Your task to perform on an android device: turn on the 24-hour format for clock Image 0: 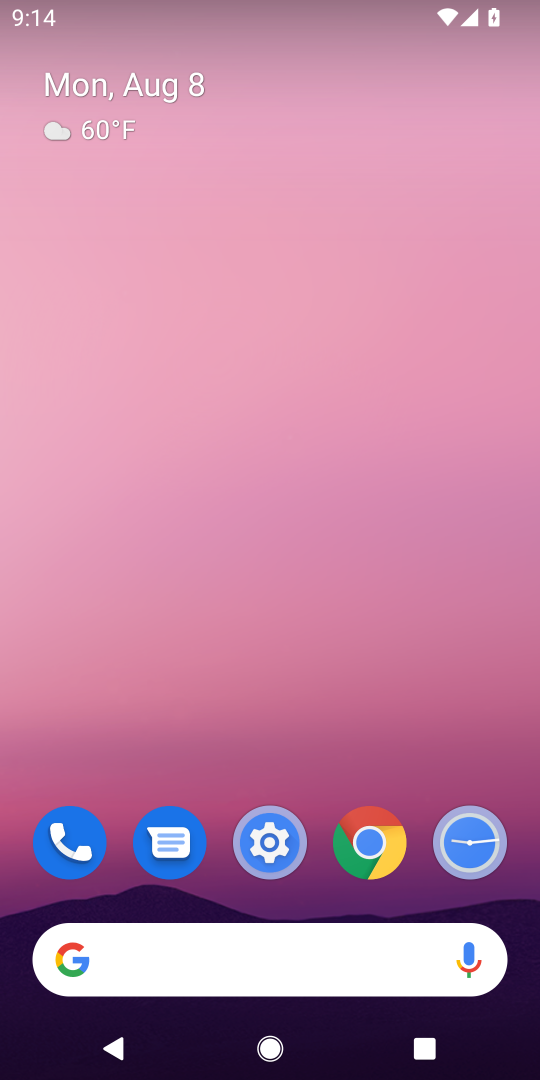
Step 0: press home button
Your task to perform on an android device: turn on the 24-hour format for clock Image 1: 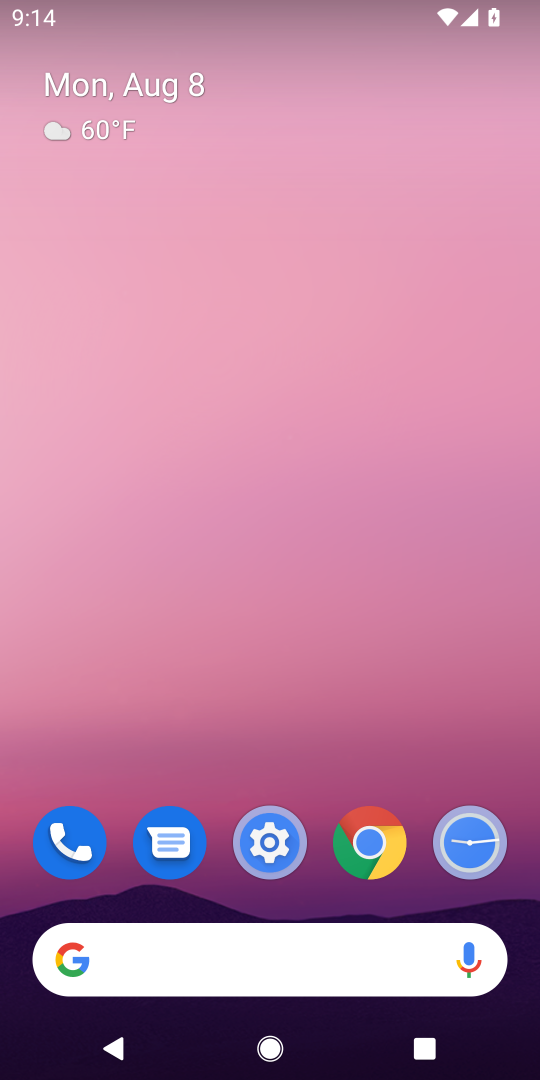
Step 1: click (475, 842)
Your task to perform on an android device: turn on the 24-hour format for clock Image 2: 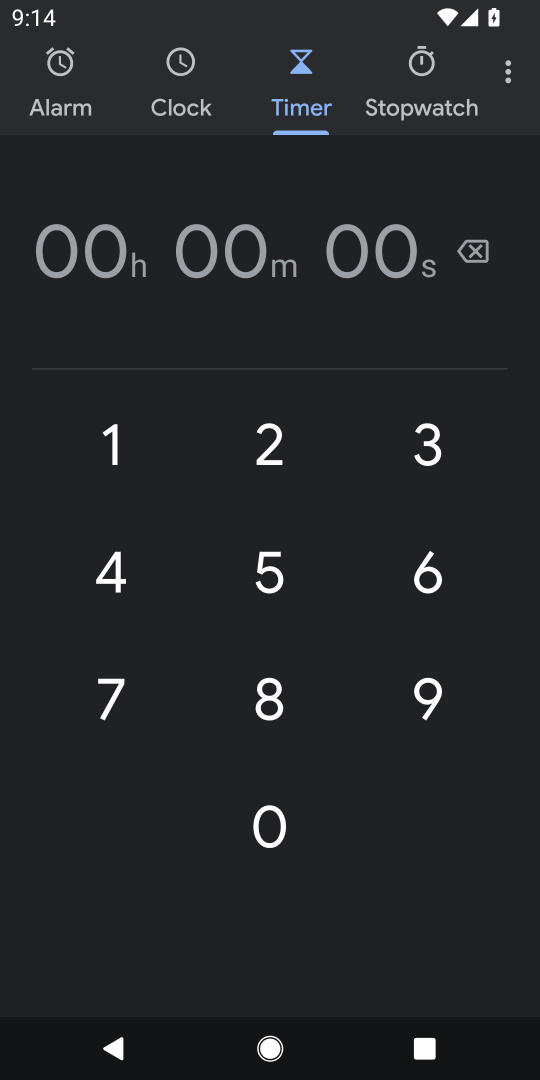
Step 2: click (503, 82)
Your task to perform on an android device: turn on the 24-hour format for clock Image 3: 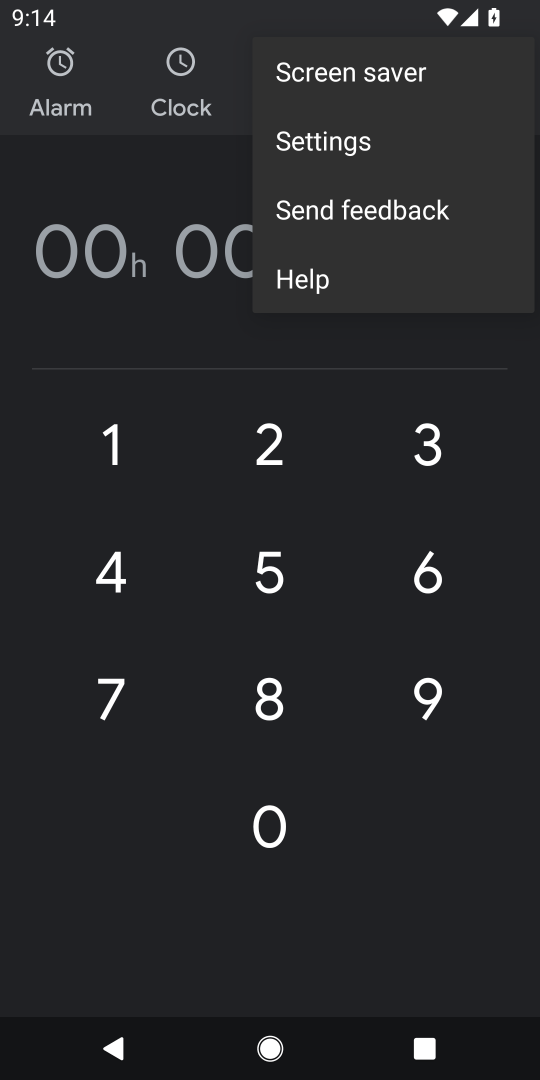
Step 3: click (354, 157)
Your task to perform on an android device: turn on the 24-hour format for clock Image 4: 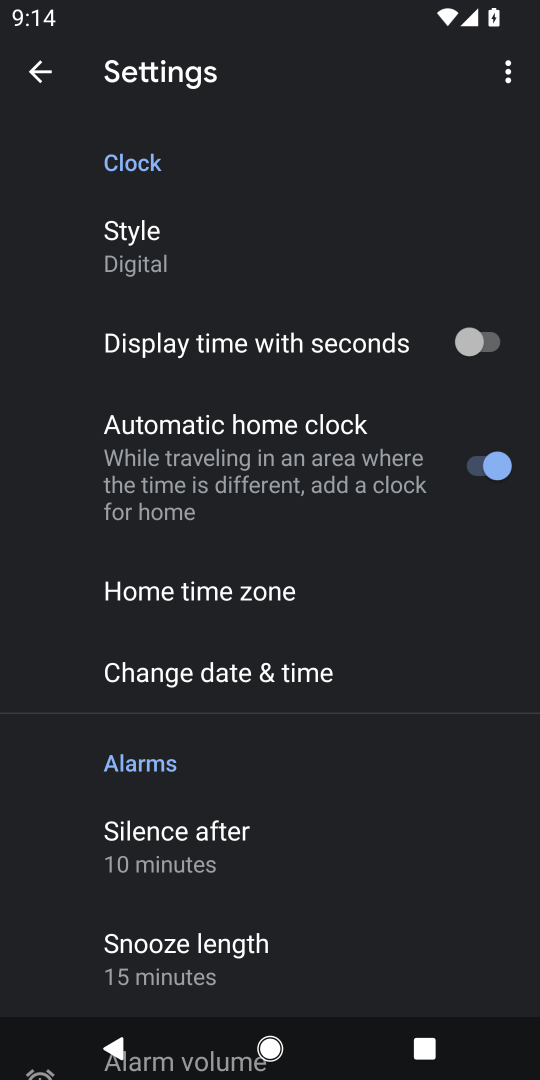
Step 4: click (265, 682)
Your task to perform on an android device: turn on the 24-hour format for clock Image 5: 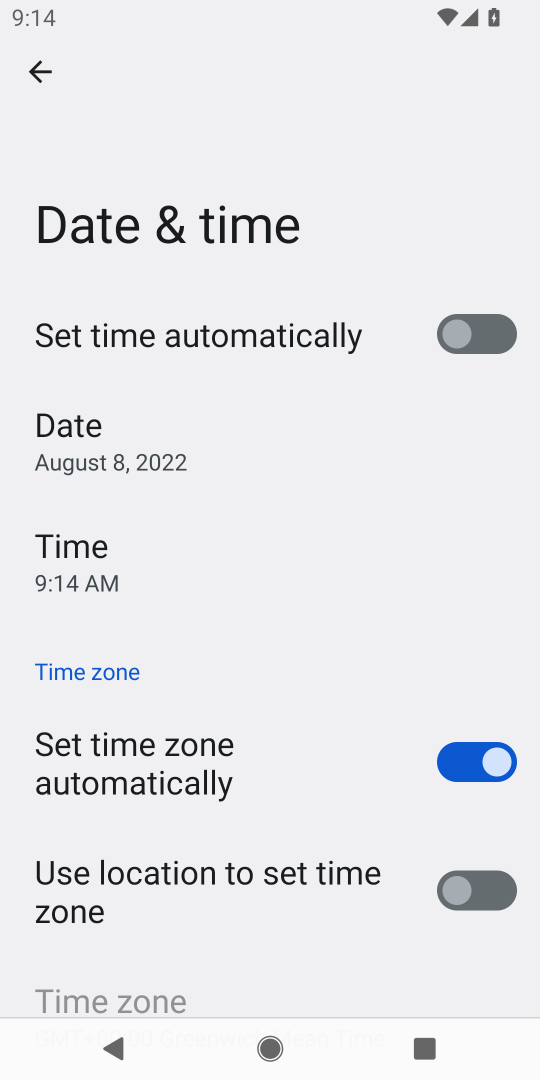
Step 5: drag from (220, 824) to (236, 235)
Your task to perform on an android device: turn on the 24-hour format for clock Image 6: 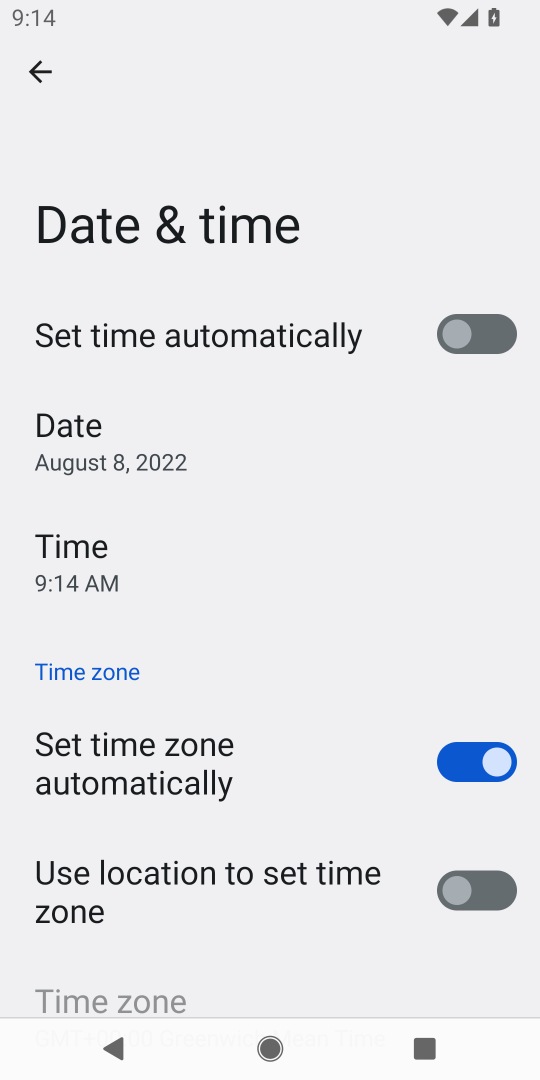
Step 6: drag from (239, 846) to (233, 347)
Your task to perform on an android device: turn on the 24-hour format for clock Image 7: 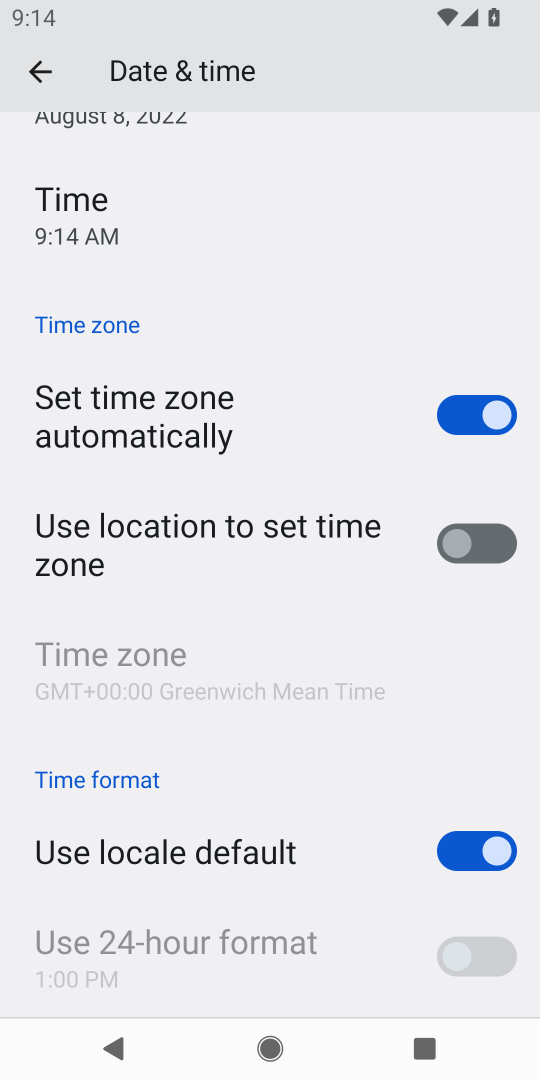
Step 7: click (451, 833)
Your task to perform on an android device: turn on the 24-hour format for clock Image 8: 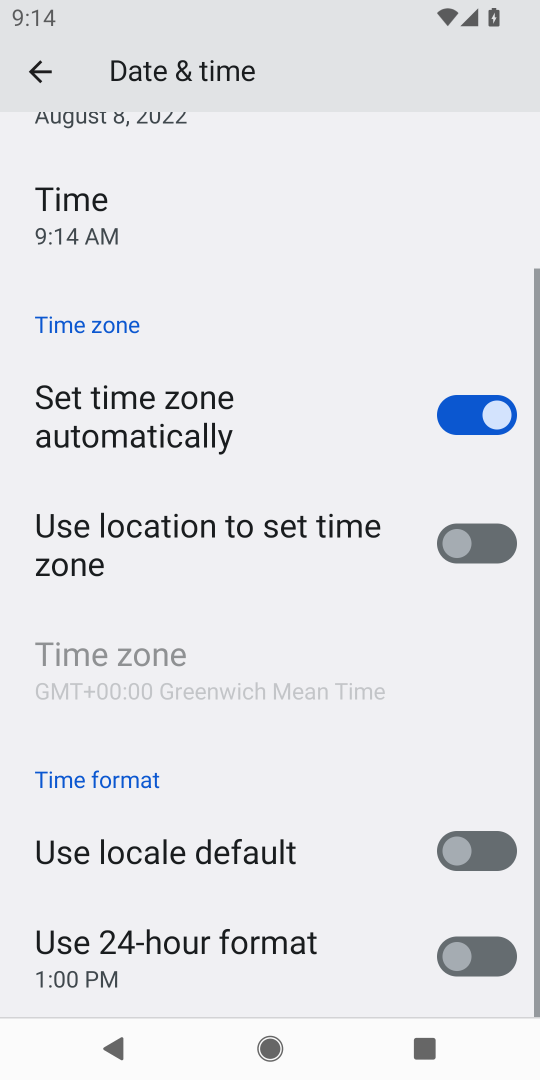
Step 8: click (482, 948)
Your task to perform on an android device: turn on the 24-hour format for clock Image 9: 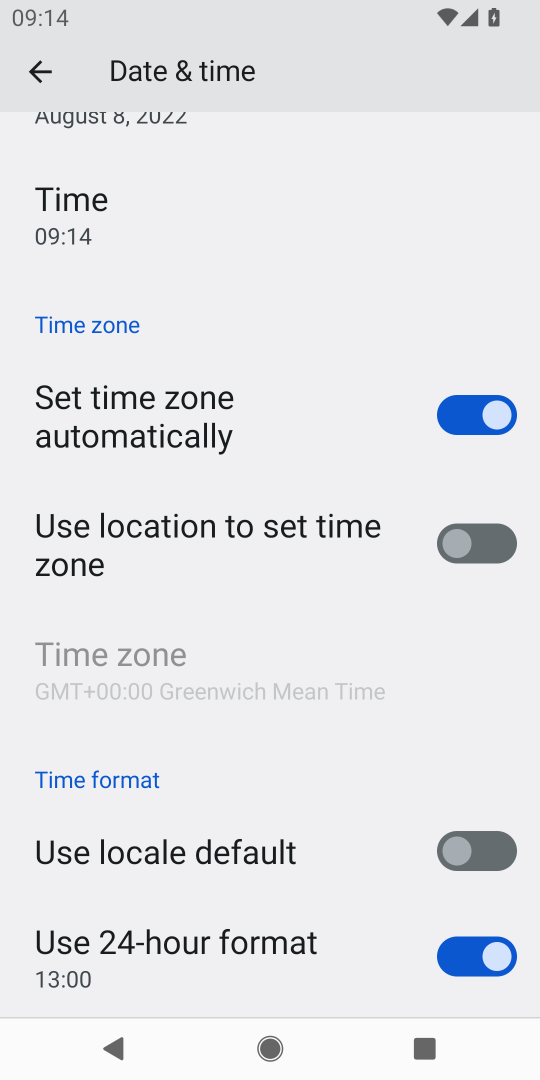
Step 9: task complete